Your task to perform on an android device: make emails show in primary in the gmail app Image 0: 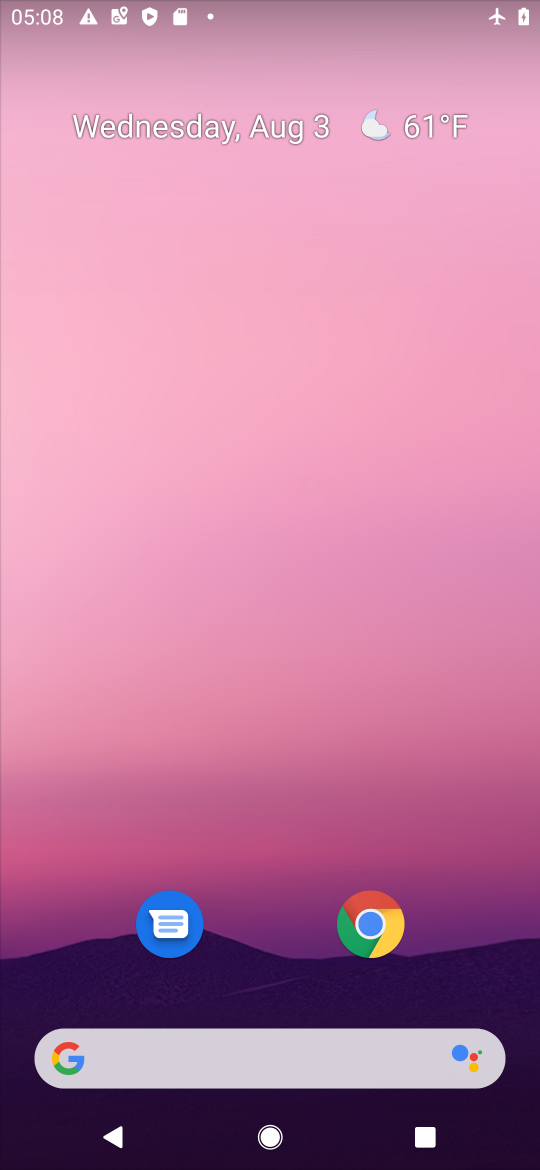
Step 0: drag from (286, 863) to (297, 410)
Your task to perform on an android device: make emails show in primary in the gmail app Image 1: 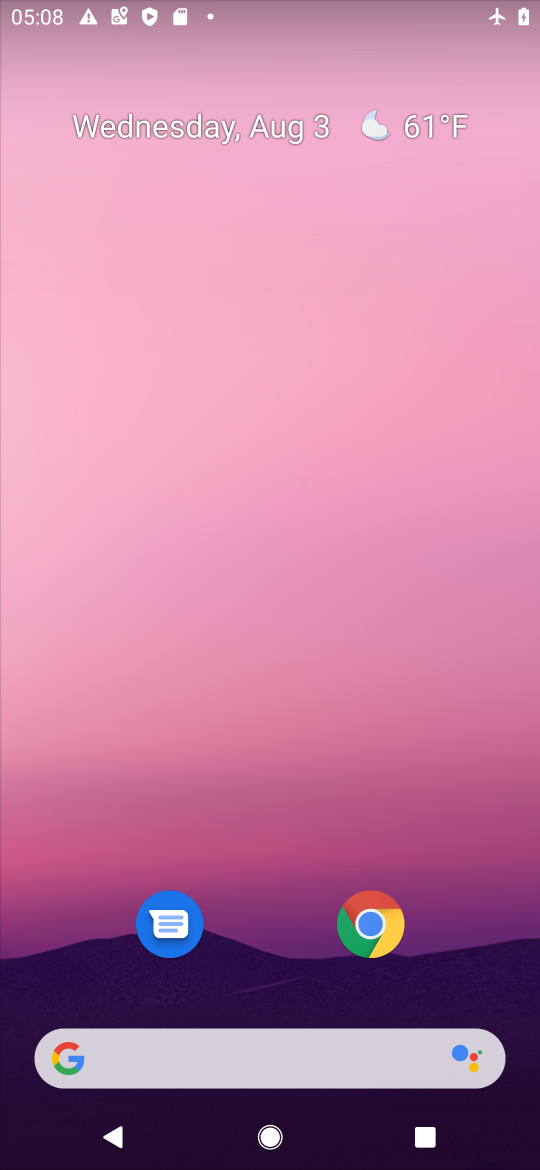
Step 1: drag from (282, 946) to (282, 238)
Your task to perform on an android device: make emails show in primary in the gmail app Image 2: 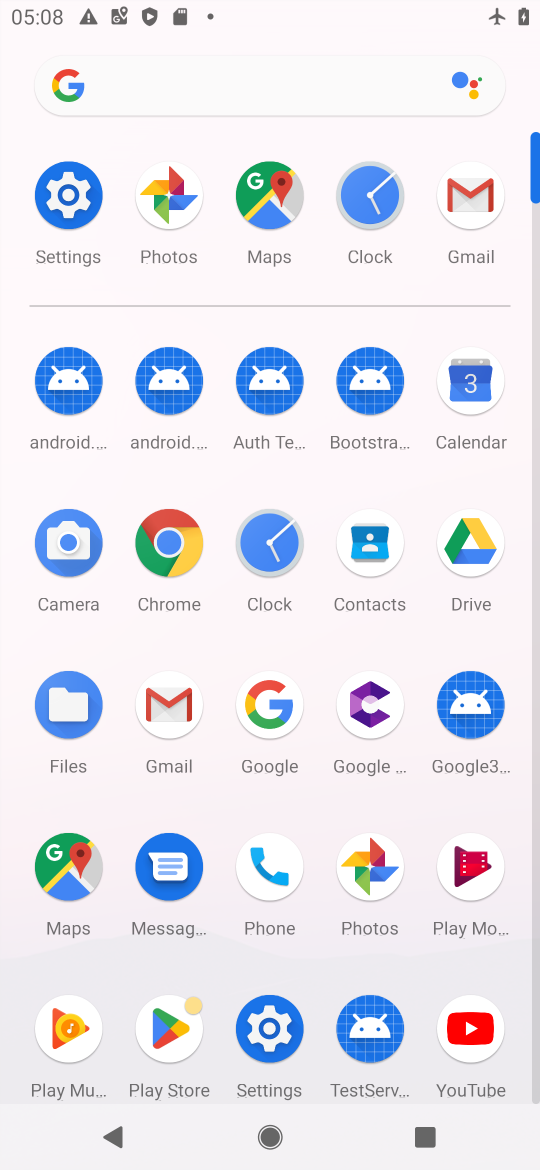
Step 2: click (455, 182)
Your task to perform on an android device: make emails show in primary in the gmail app Image 3: 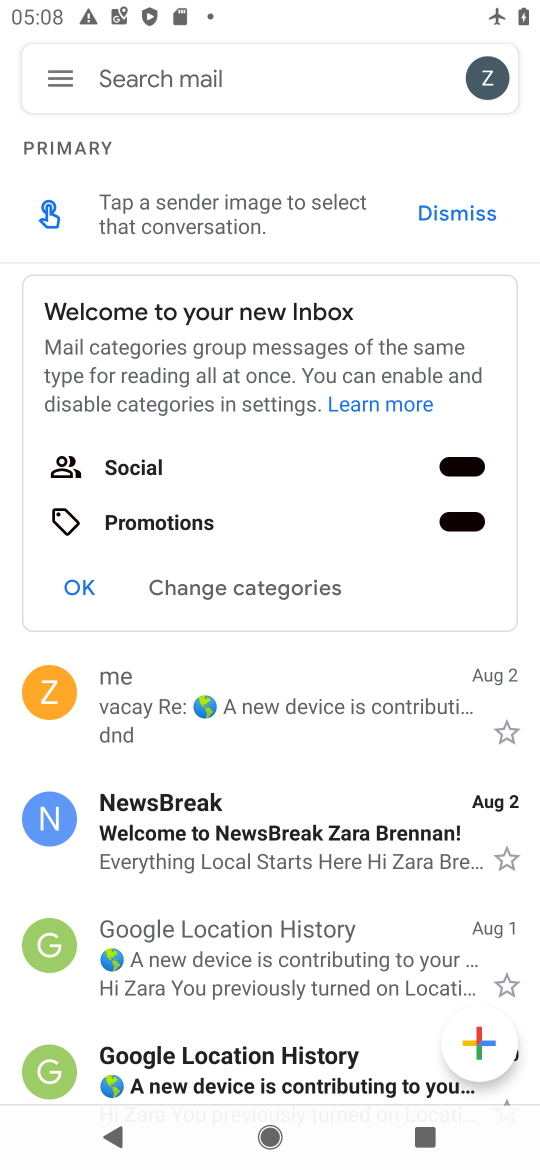
Step 3: click (69, 85)
Your task to perform on an android device: make emails show in primary in the gmail app Image 4: 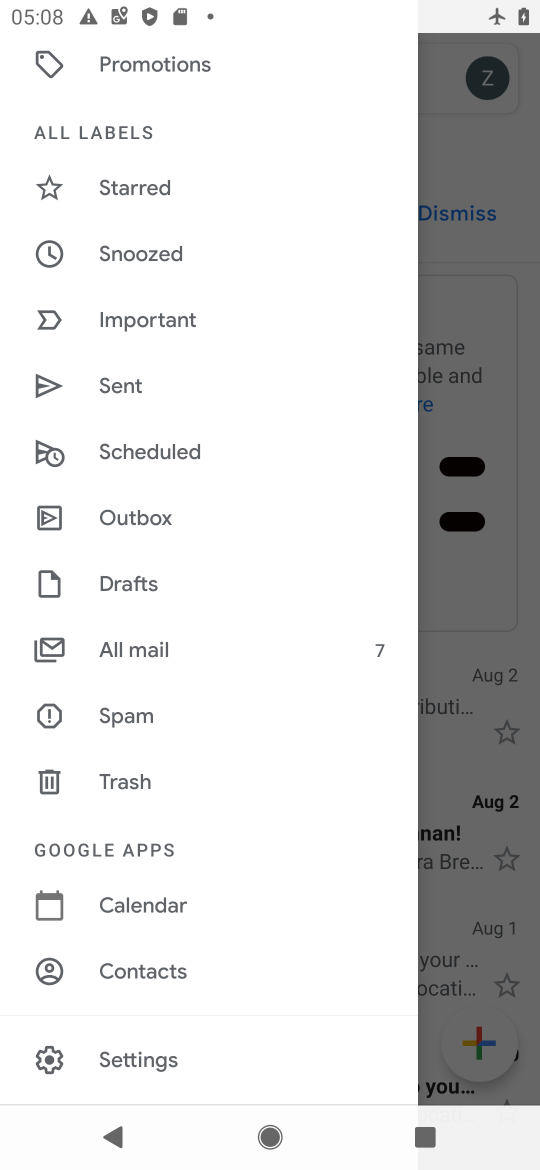
Step 4: click (164, 1046)
Your task to perform on an android device: make emails show in primary in the gmail app Image 5: 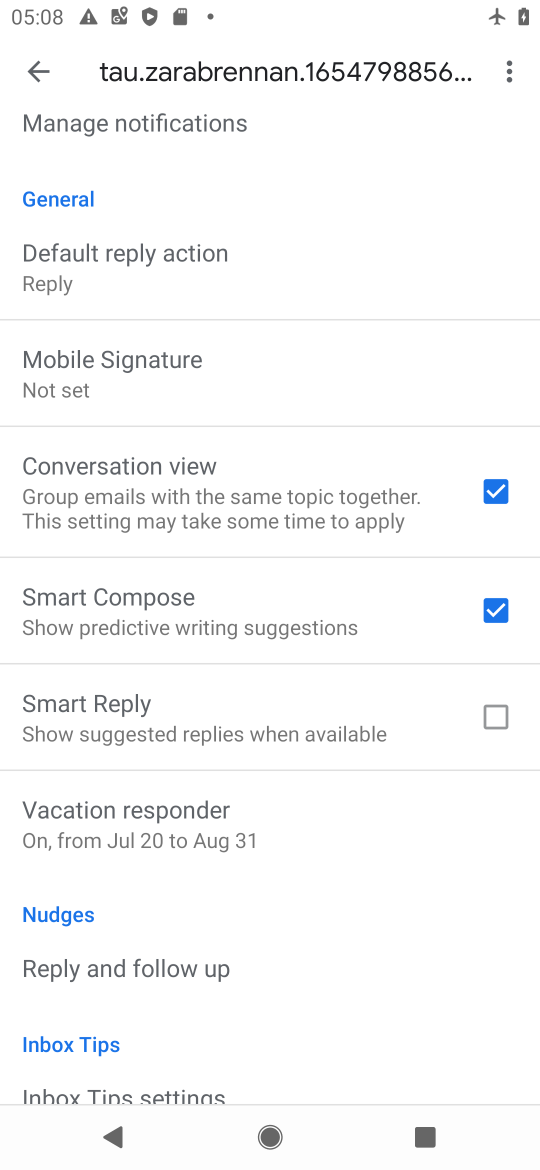
Step 5: drag from (262, 318) to (350, 989)
Your task to perform on an android device: make emails show in primary in the gmail app Image 6: 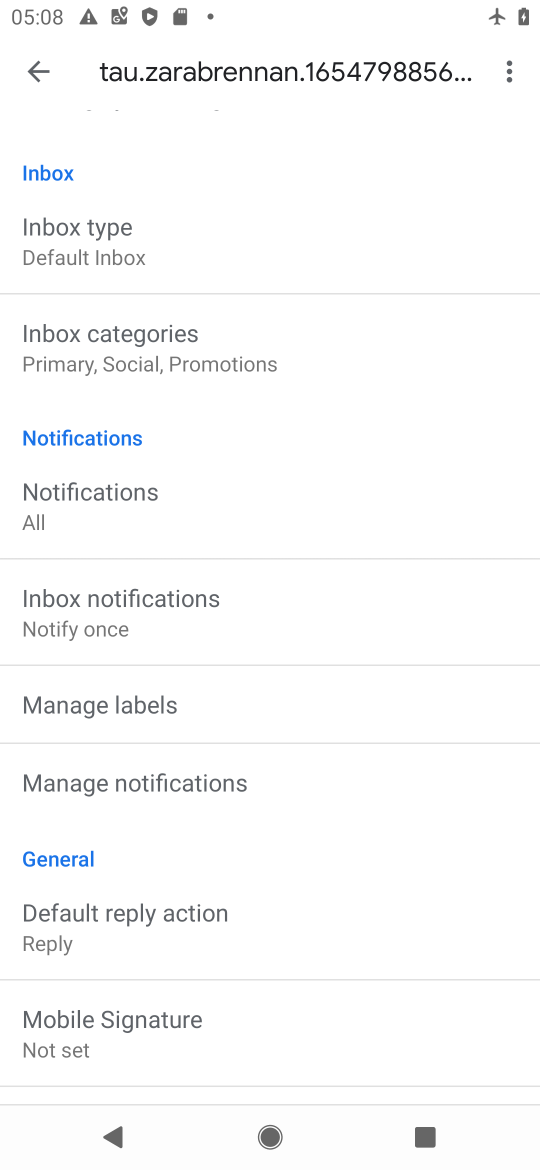
Step 6: drag from (199, 238) to (290, 731)
Your task to perform on an android device: make emails show in primary in the gmail app Image 7: 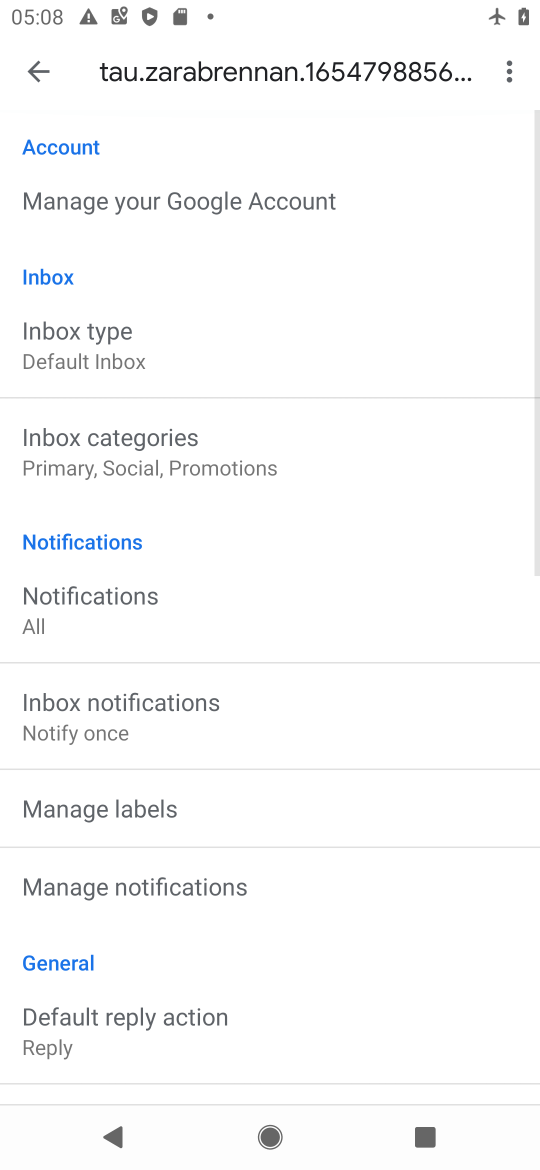
Step 7: click (158, 336)
Your task to perform on an android device: make emails show in primary in the gmail app Image 8: 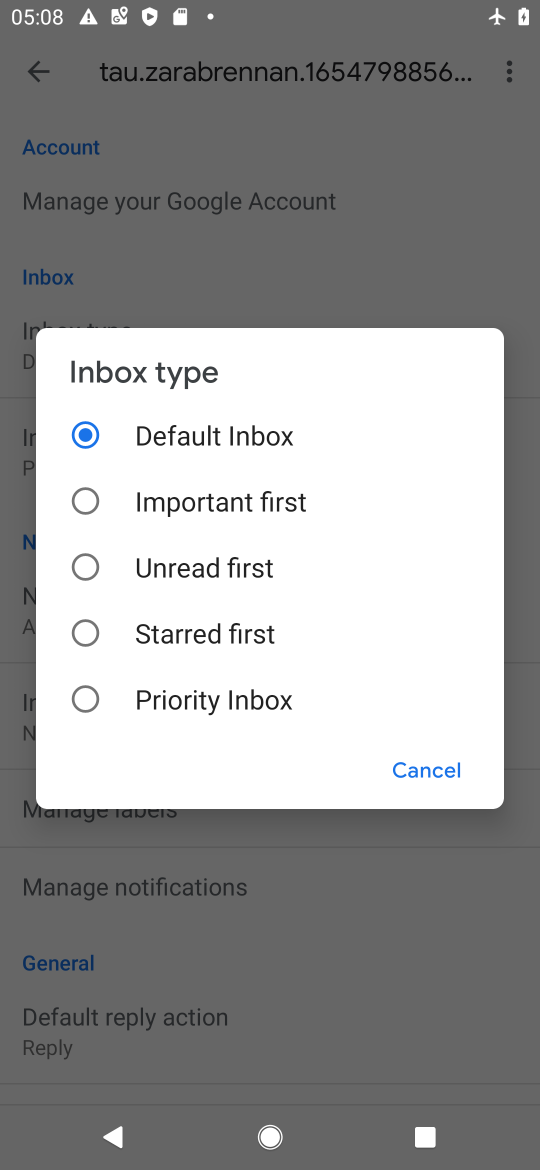
Step 8: task complete